Your task to perform on an android device: Open Google Maps Image 0: 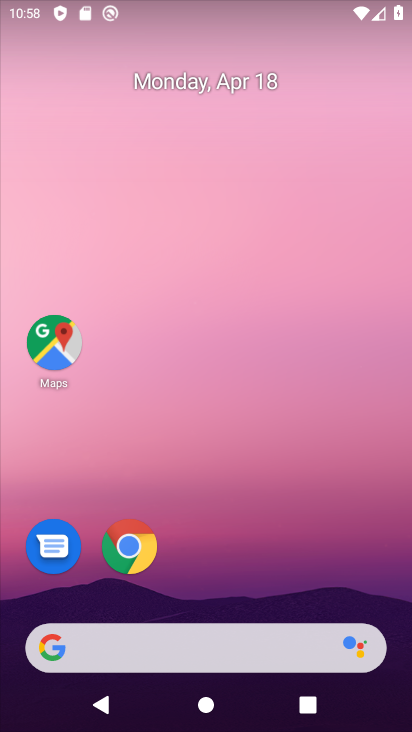
Step 0: drag from (384, 583) to (364, 76)
Your task to perform on an android device: Open Google Maps Image 1: 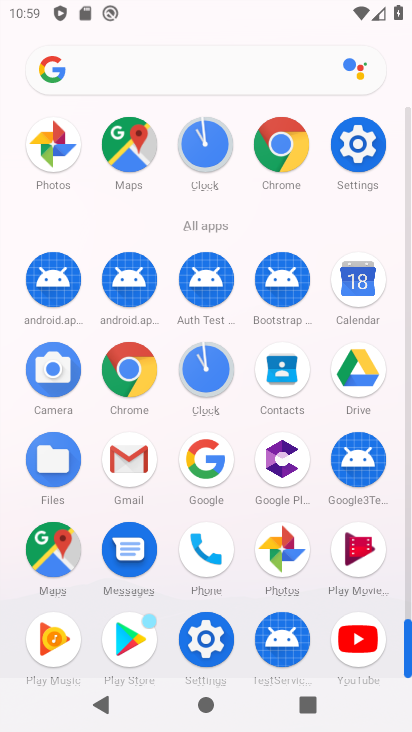
Step 1: click (52, 560)
Your task to perform on an android device: Open Google Maps Image 2: 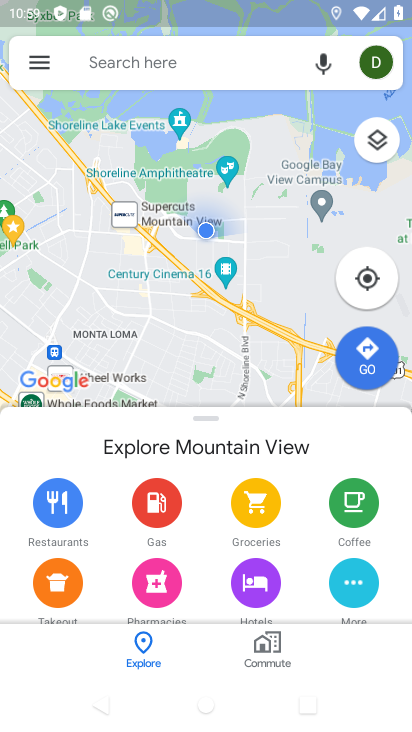
Step 2: task complete